Your task to perform on an android device: change notification settings in the gmail app Image 0: 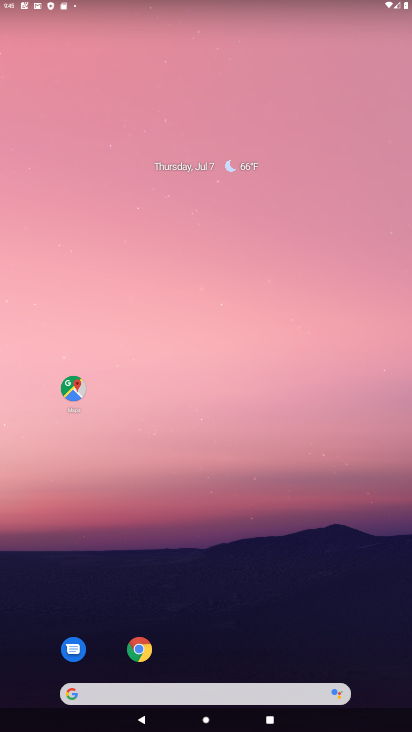
Step 0: click (73, 393)
Your task to perform on an android device: change notification settings in the gmail app Image 1: 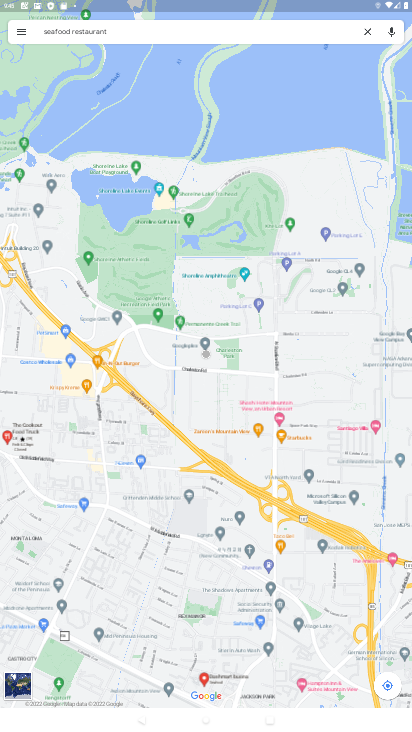
Step 1: press back button
Your task to perform on an android device: change notification settings in the gmail app Image 2: 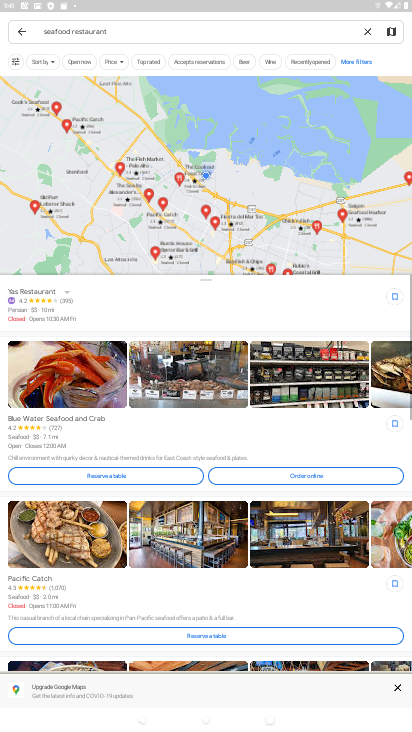
Step 2: press back button
Your task to perform on an android device: change notification settings in the gmail app Image 3: 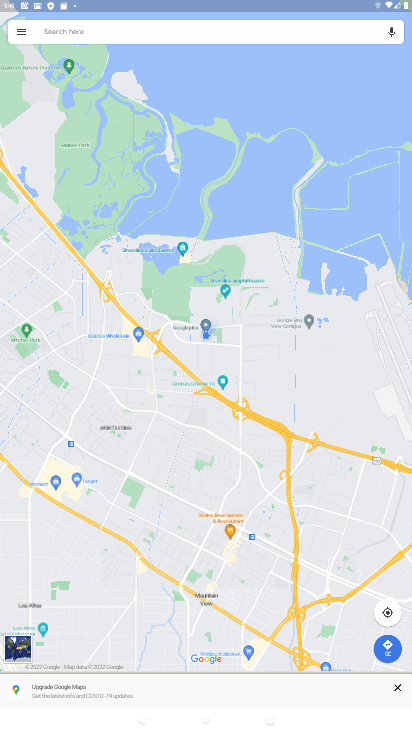
Step 3: press back button
Your task to perform on an android device: change notification settings in the gmail app Image 4: 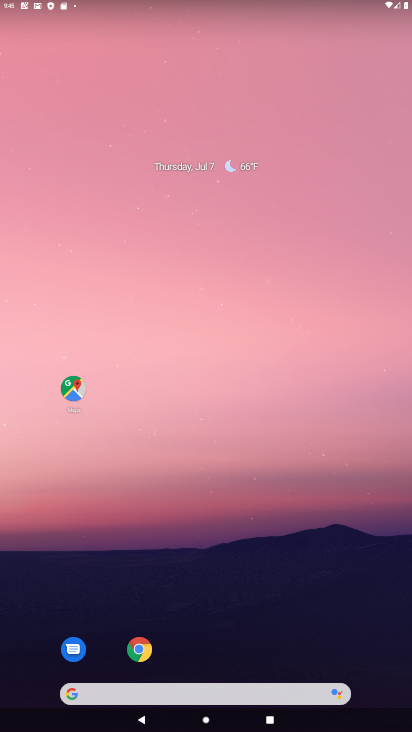
Step 4: drag from (192, 634) to (204, 122)
Your task to perform on an android device: change notification settings in the gmail app Image 5: 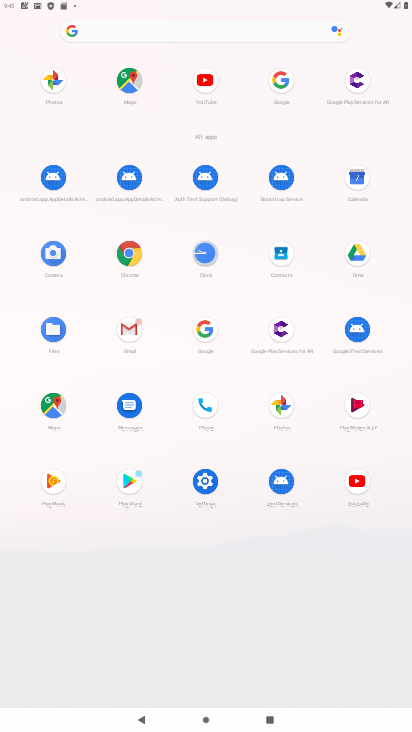
Step 5: click (119, 332)
Your task to perform on an android device: change notification settings in the gmail app Image 6: 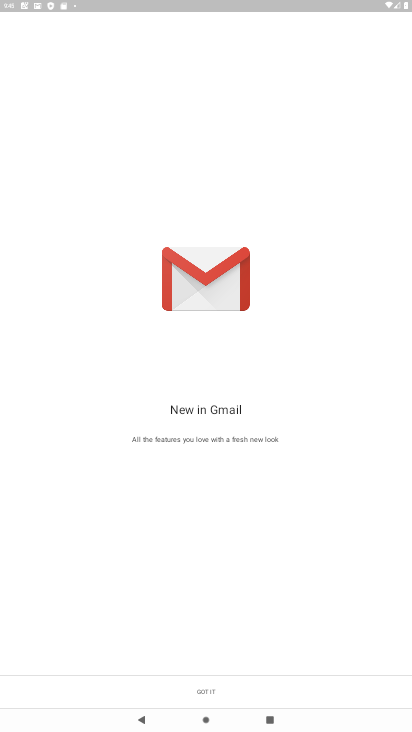
Step 6: click (202, 687)
Your task to perform on an android device: change notification settings in the gmail app Image 7: 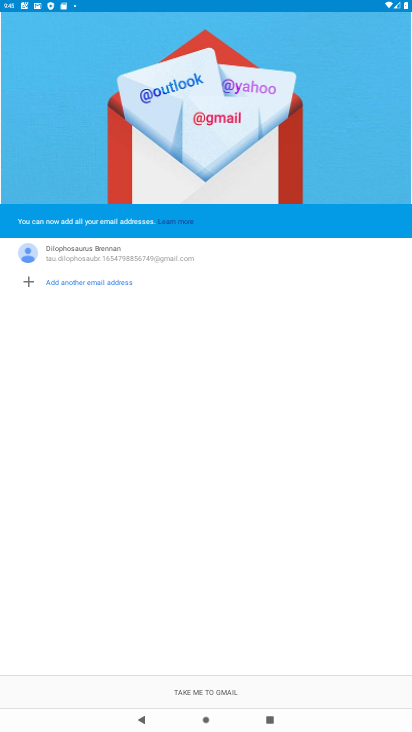
Step 7: click (202, 687)
Your task to perform on an android device: change notification settings in the gmail app Image 8: 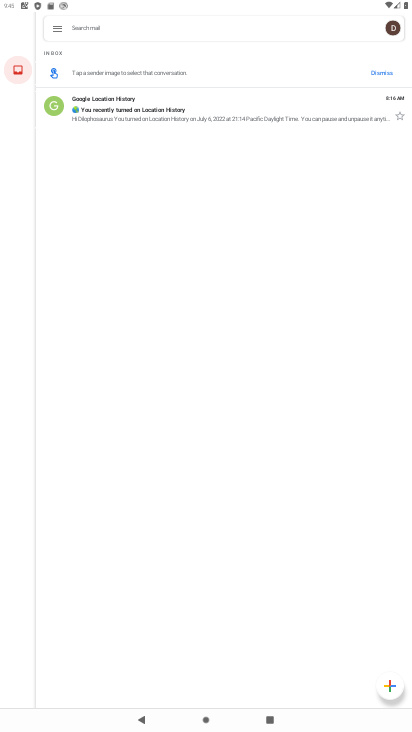
Step 8: click (57, 28)
Your task to perform on an android device: change notification settings in the gmail app Image 9: 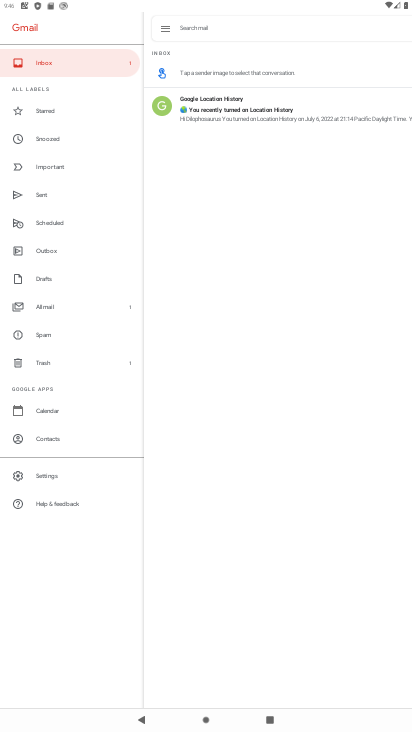
Step 9: click (52, 473)
Your task to perform on an android device: change notification settings in the gmail app Image 10: 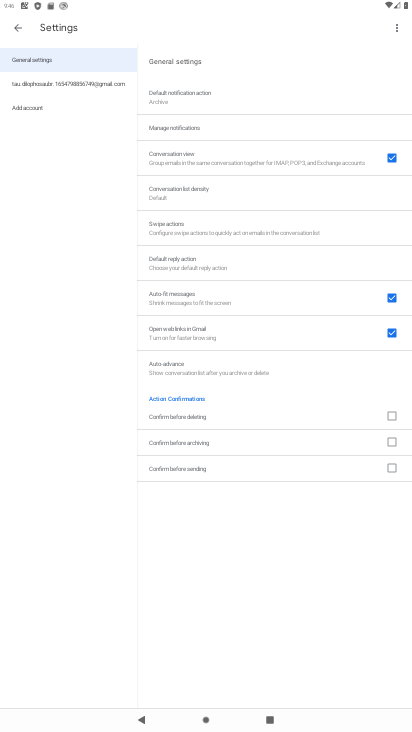
Step 10: click (102, 81)
Your task to perform on an android device: change notification settings in the gmail app Image 11: 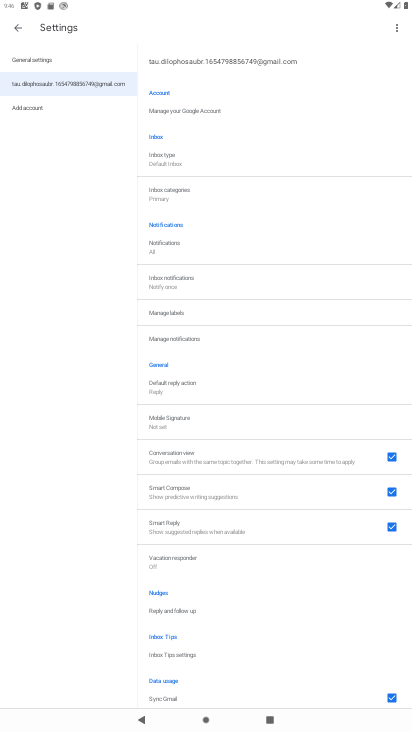
Step 11: click (195, 341)
Your task to perform on an android device: change notification settings in the gmail app Image 12: 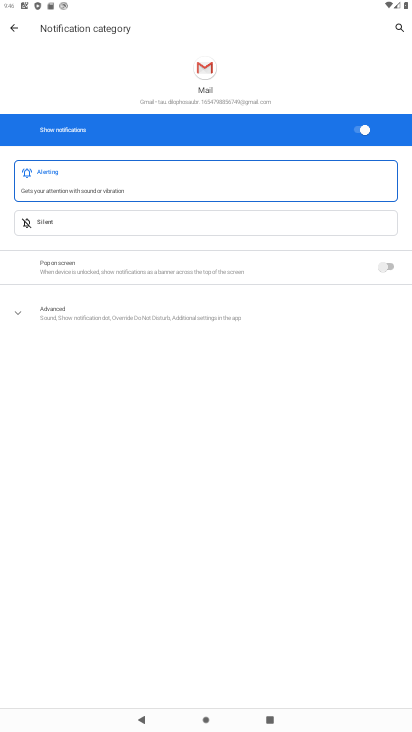
Step 12: click (320, 223)
Your task to perform on an android device: change notification settings in the gmail app Image 13: 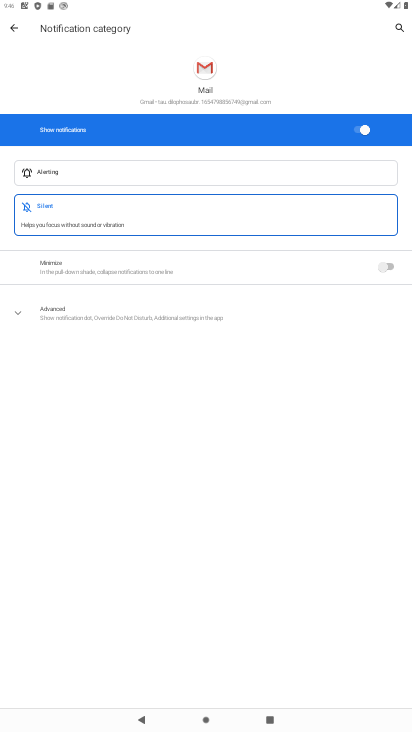
Step 13: task complete